Your task to perform on an android device: Go to battery settings Image 0: 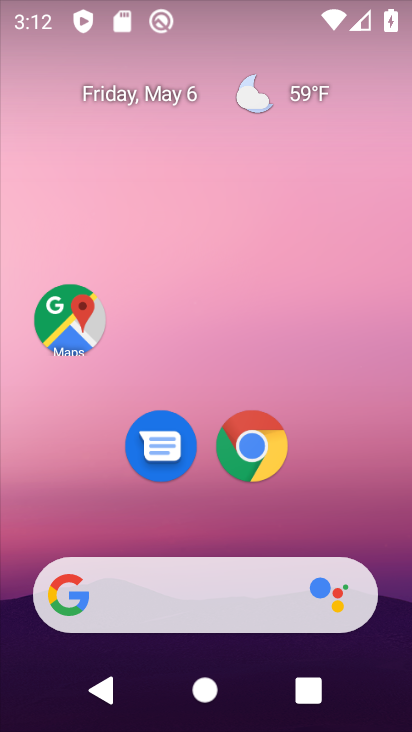
Step 0: drag from (327, 510) to (353, 94)
Your task to perform on an android device: Go to battery settings Image 1: 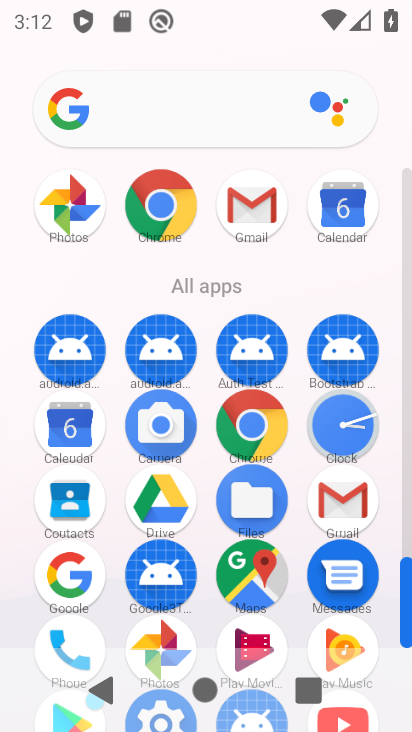
Step 1: drag from (197, 582) to (208, 242)
Your task to perform on an android device: Go to battery settings Image 2: 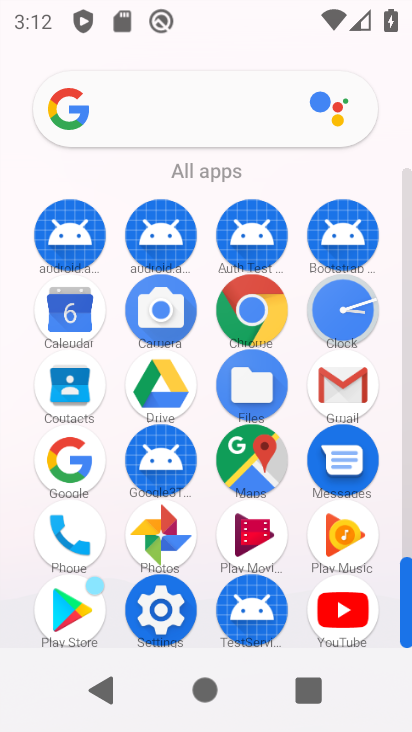
Step 2: click (159, 584)
Your task to perform on an android device: Go to battery settings Image 3: 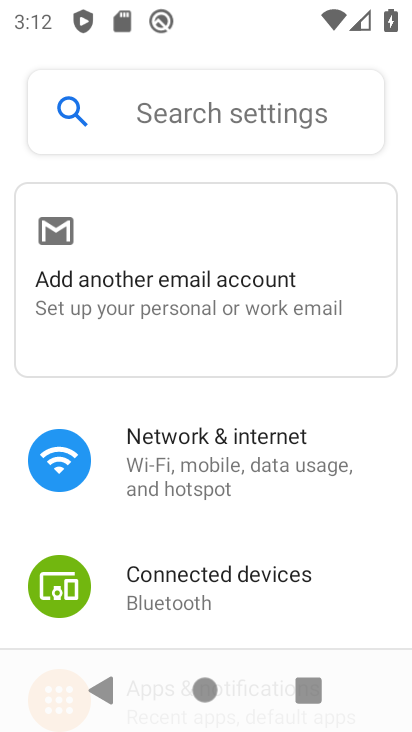
Step 3: drag from (256, 593) to (279, 224)
Your task to perform on an android device: Go to battery settings Image 4: 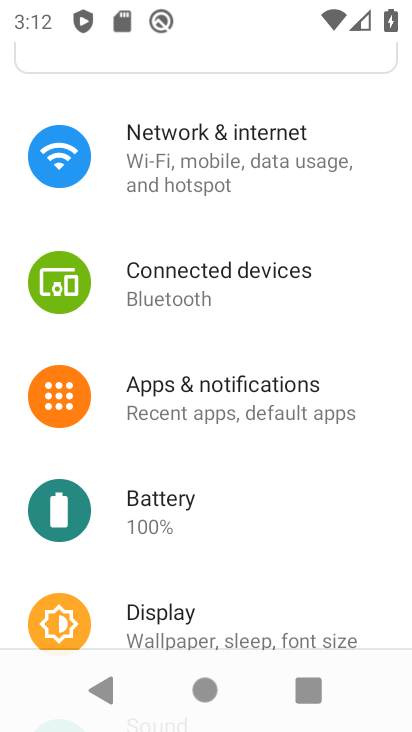
Step 4: click (223, 514)
Your task to perform on an android device: Go to battery settings Image 5: 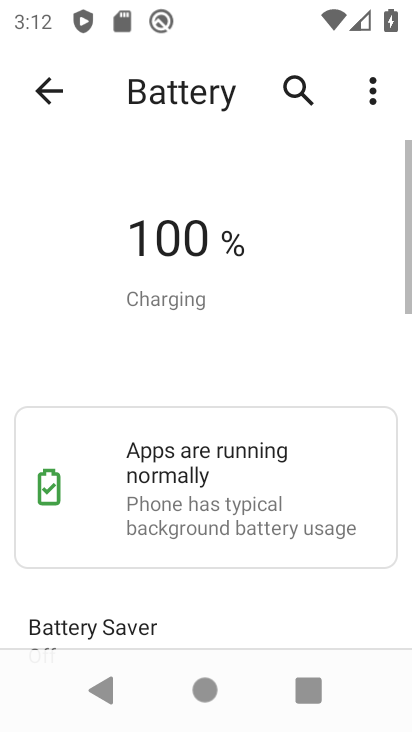
Step 5: task complete